Your task to perform on an android device: turn on sleep mode Image 0: 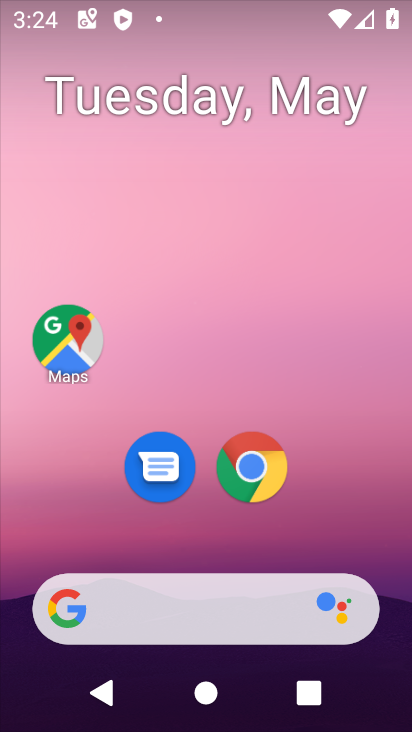
Step 0: drag from (353, 544) to (314, 173)
Your task to perform on an android device: turn on sleep mode Image 1: 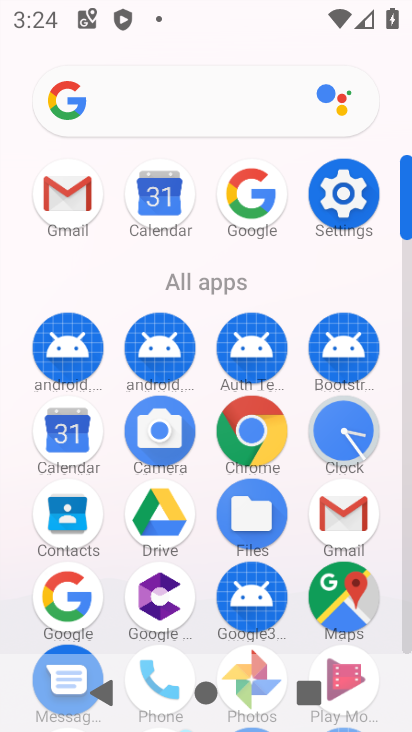
Step 1: click (337, 203)
Your task to perform on an android device: turn on sleep mode Image 2: 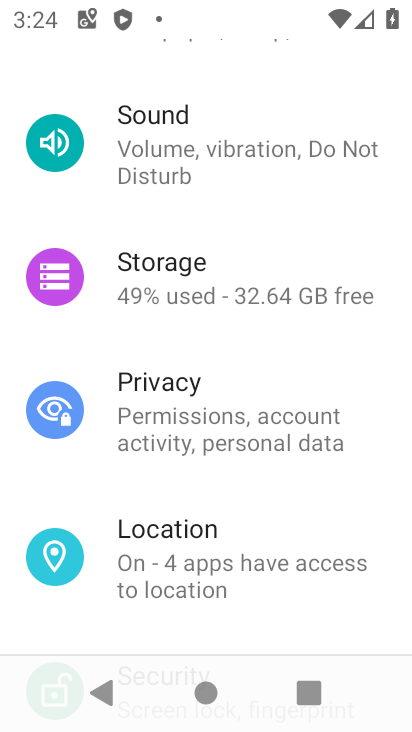
Step 2: drag from (275, 217) to (247, 544)
Your task to perform on an android device: turn on sleep mode Image 3: 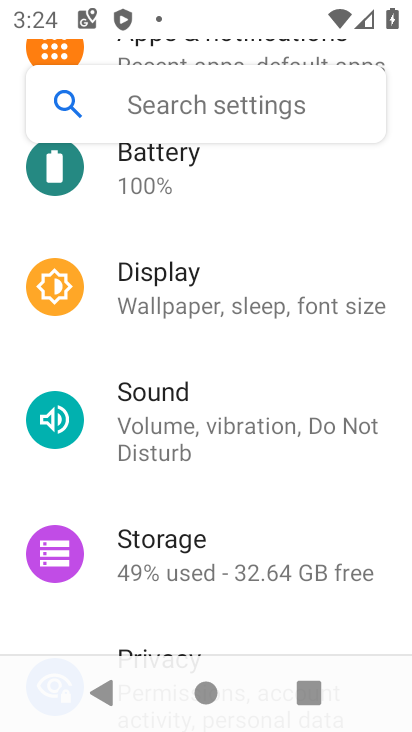
Step 3: click (215, 287)
Your task to perform on an android device: turn on sleep mode Image 4: 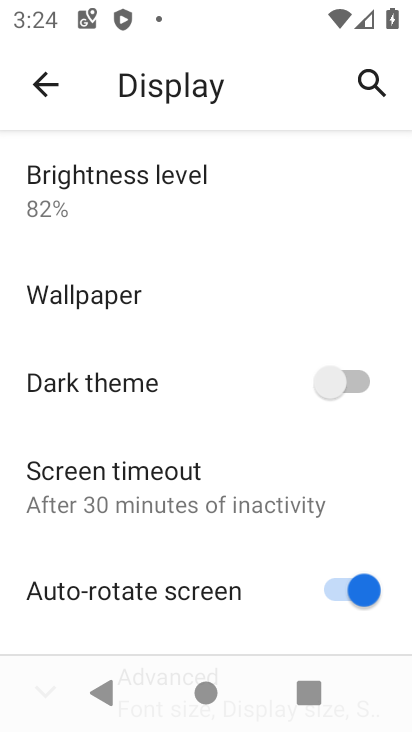
Step 4: task complete